Your task to perform on an android device: Search for vegetarian restaurants on Maps Image 0: 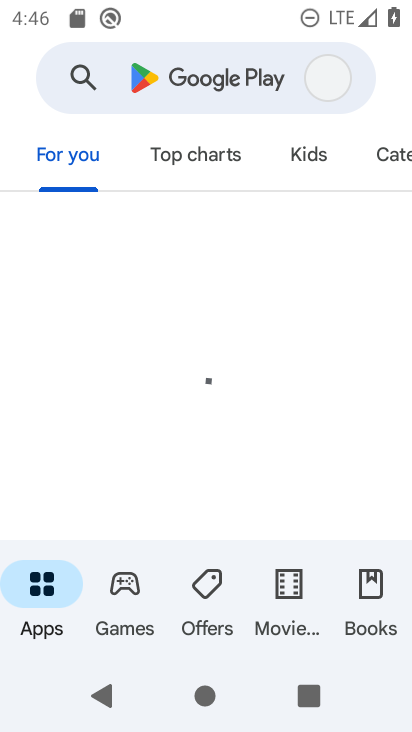
Step 0: press back button
Your task to perform on an android device: Search for vegetarian restaurants on Maps Image 1: 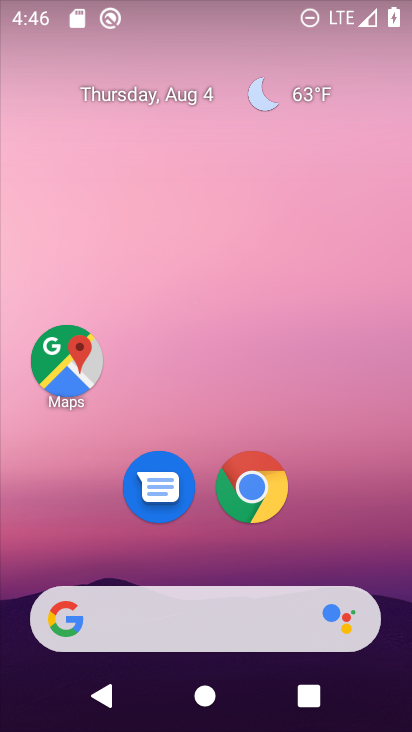
Step 1: click (58, 362)
Your task to perform on an android device: Search for vegetarian restaurants on Maps Image 2: 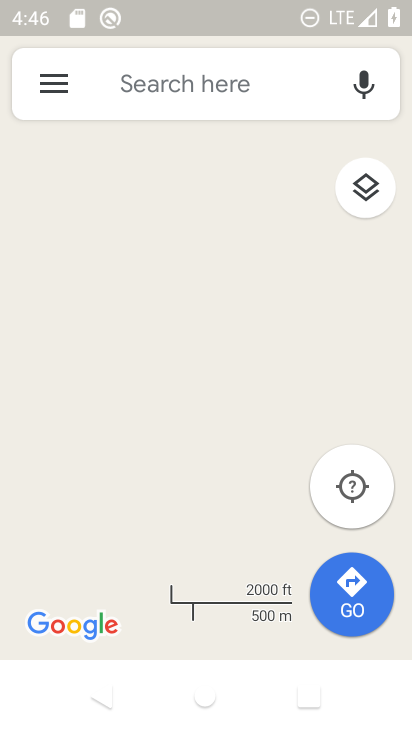
Step 2: click (178, 94)
Your task to perform on an android device: Search for vegetarian restaurants on Maps Image 3: 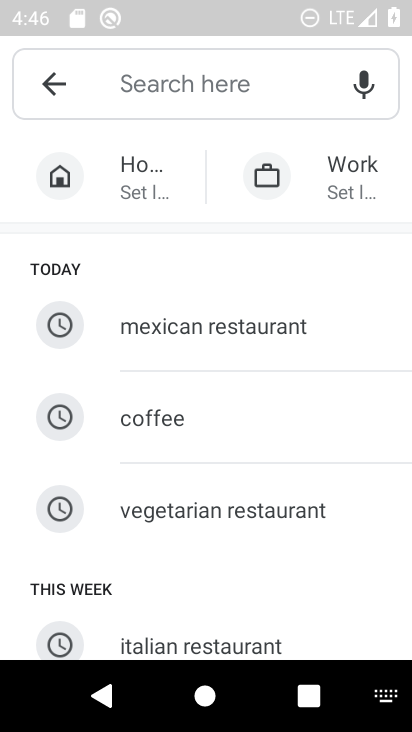
Step 3: type " vegetarian"
Your task to perform on an android device: Search for vegetarian restaurants on Maps Image 4: 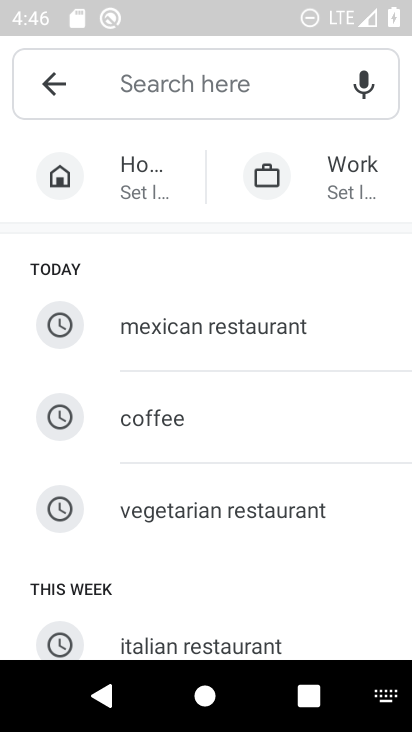
Step 4: click (252, 525)
Your task to perform on an android device: Search for vegetarian restaurants on Maps Image 5: 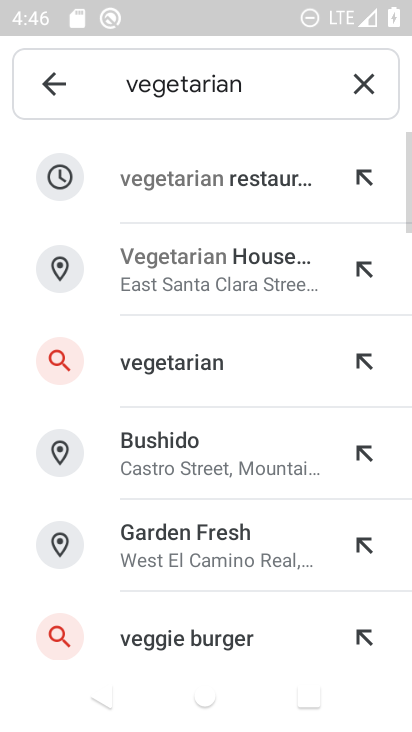
Step 5: click (196, 175)
Your task to perform on an android device: Search for vegetarian restaurants on Maps Image 6: 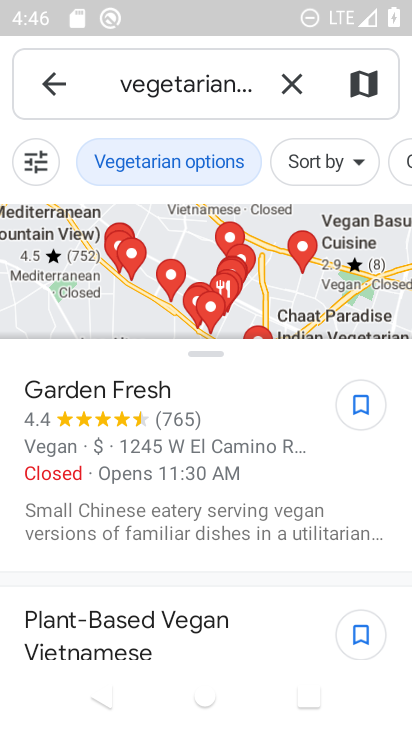
Step 6: task complete